Your task to perform on an android device: delete the emails in spam in the gmail app Image 0: 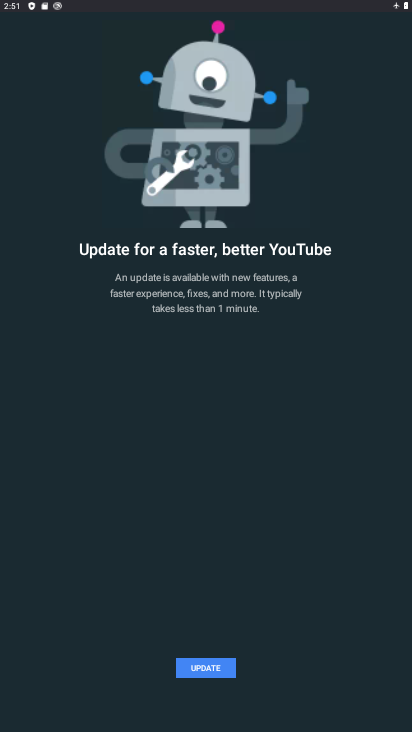
Step 0: press home button
Your task to perform on an android device: delete the emails in spam in the gmail app Image 1: 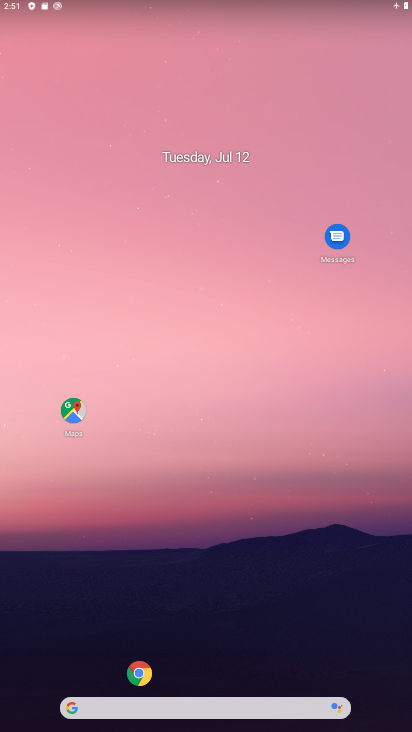
Step 1: drag from (283, 17) to (224, 725)
Your task to perform on an android device: delete the emails in spam in the gmail app Image 2: 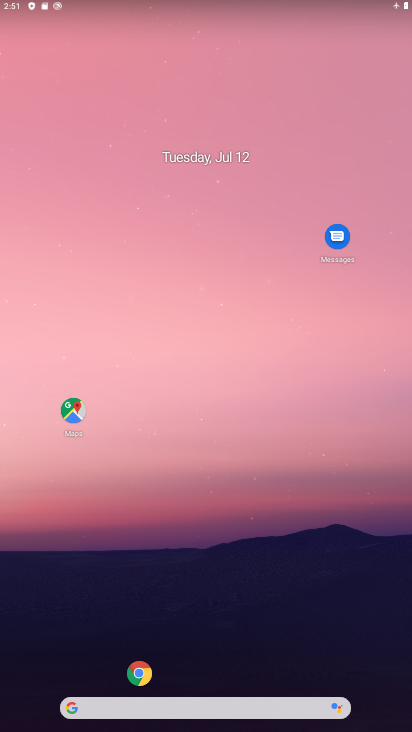
Step 2: drag from (279, 31) to (192, 731)
Your task to perform on an android device: delete the emails in spam in the gmail app Image 3: 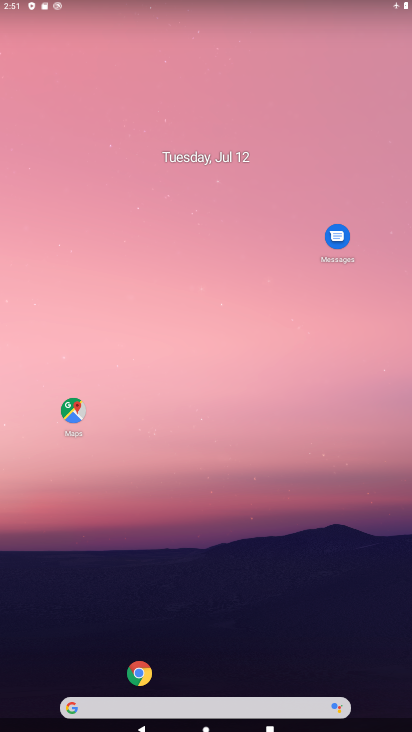
Step 3: drag from (183, 274) to (252, 115)
Your task to perform on an android device: delete the emails in spam in the gmail app Image 4: 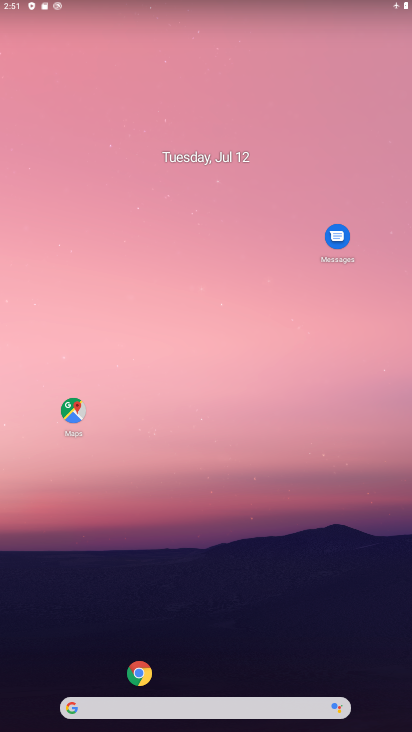
Step 4: drag from (48, 693) to (410, 40)
Your task to perform on an android device: delete the emails in spam in the gmail app Image 5: 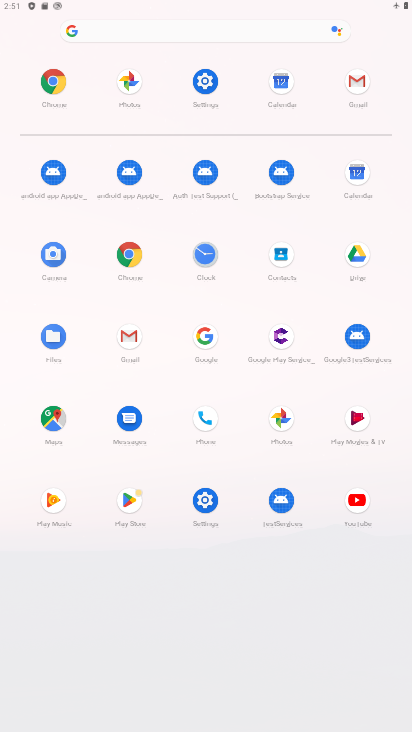
Step 5: click (127, 338)
Your task to perform on an android device: delete the emails in spam in the gmail app Image 6: 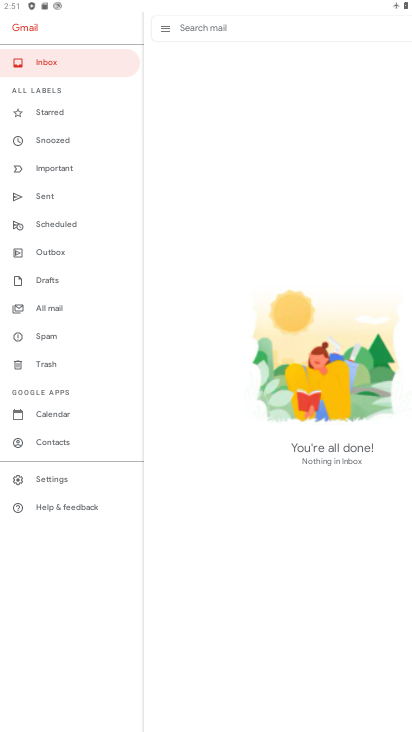
Step 6: click (60, 336)
Your task to perform on an android device: delete the emails in spam in the gmail app Image 7: 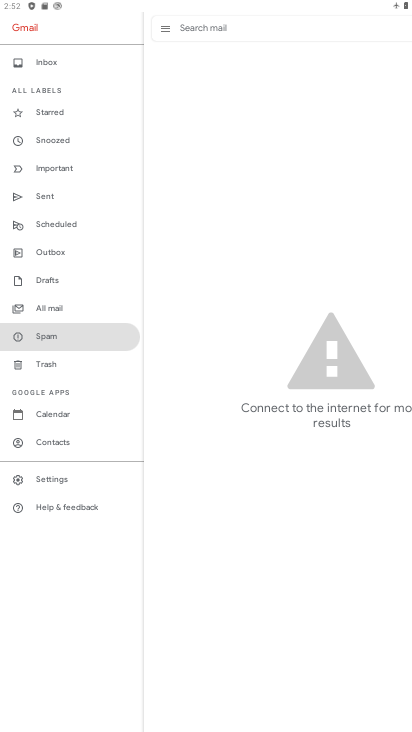
Step 7: task complete